Your task to perform on an android device: turn off notifications settings in the gmail app Image 0: 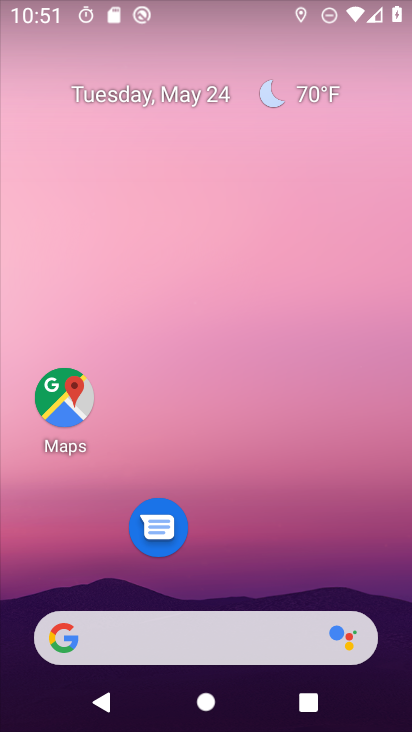
Step 0: drag from (263, 551) to (333, 104)
Your task to perform on an android device: turn off notifications settings in the gmail app Image 1: 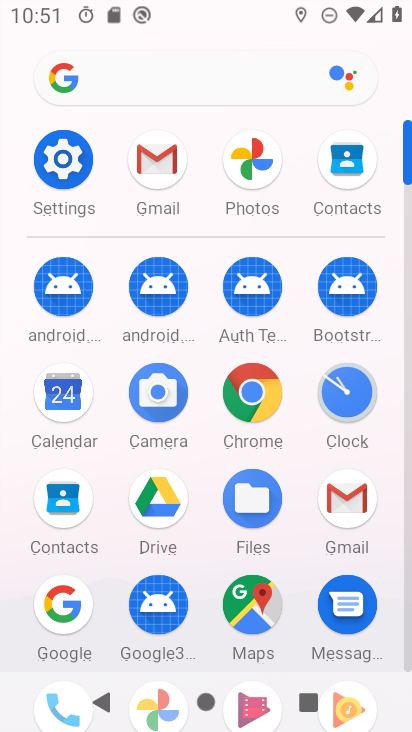
Step 1: click (161, 156)
Your task to perform on an android device: turn off notifications settings in the gmail app Image 2: 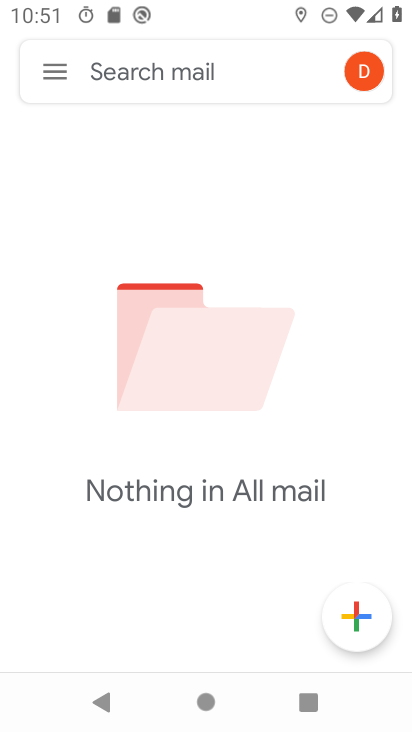
Step 2: click (46, 74)
Your task to perform on an android device: turn off notifications settings in the gmail app Image 3: 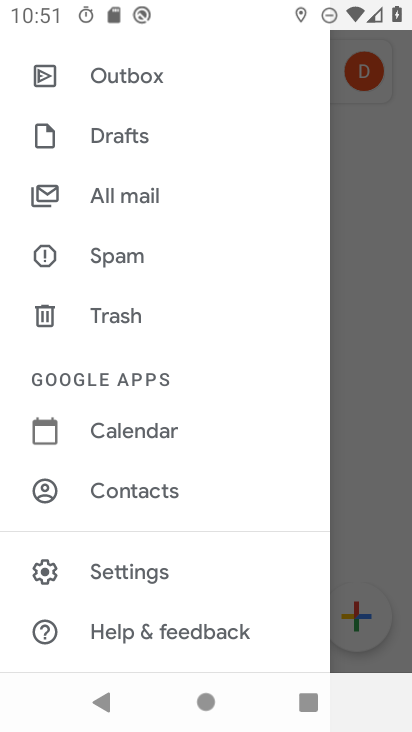
Step 3: click (164, 568)
Your task to perform on an android device: turn off notifications settings in the gmail app Image 4: 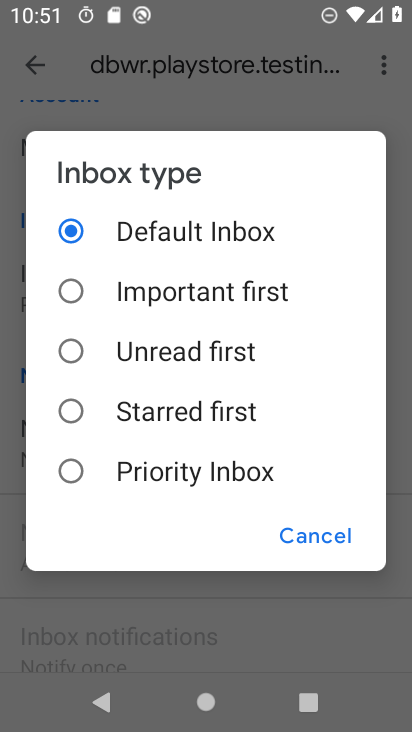
Step 4: click (345, 536)
Your task to perform on an android device: turn off notifications settings in the gmail app Image 5: 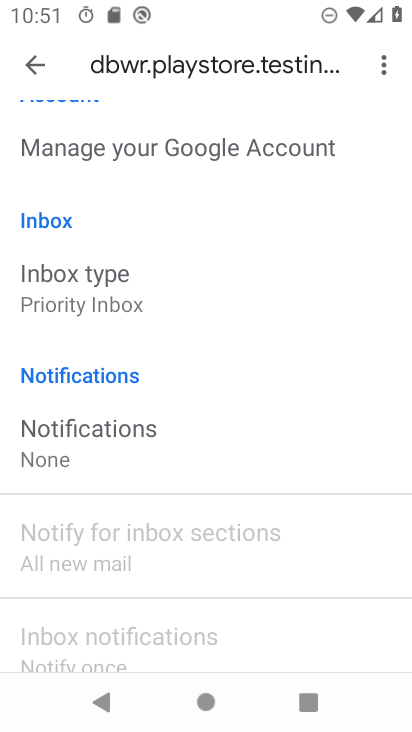
Step 5: drag from (153, 274) to (236, 627)
Your task to perform on an android device: turn off notifications settings in the gmail app Image 6: 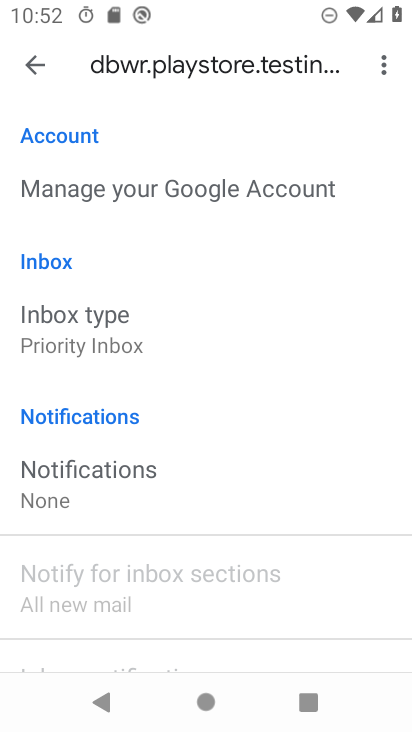
Step 6: press back button
Your task to perform on an android device: turn off notifications settings in the gmail app Image 7: 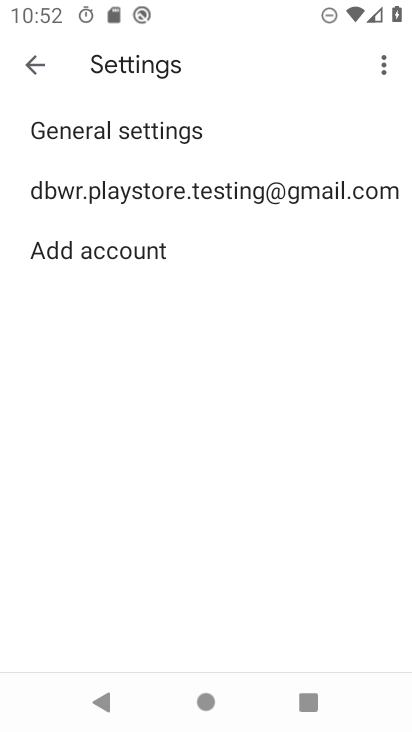
Step 7: click (214, 179)
Your task to perform on an android device: turn off notifications settings in the gmail app Image 8: 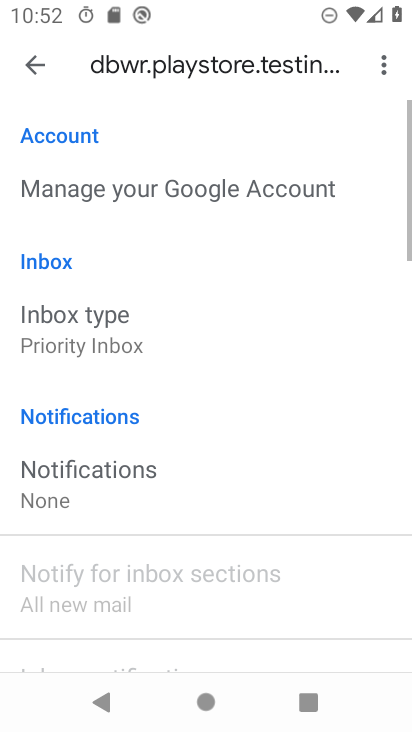
Step 8: click (106, 499)
Your task to perform on an android device: turn off notifications settings in the gmail app Image 9: 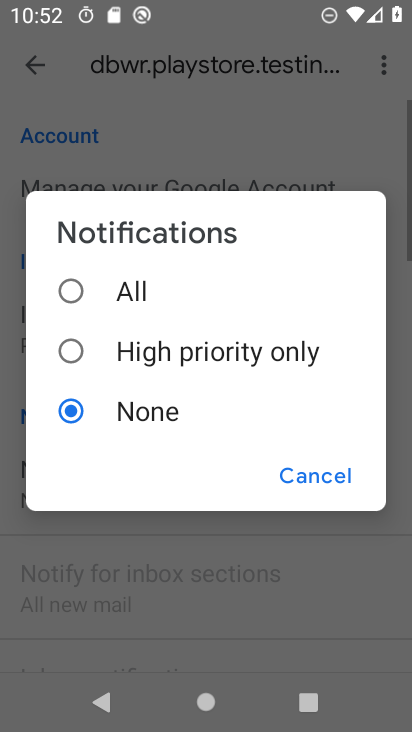
Step 9: task complete